Your task to perform on an android device: Open network settings Image 0: 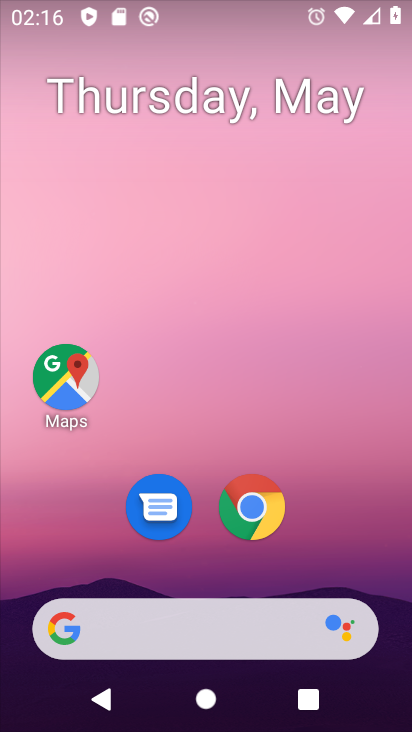
Step 0: drag from (330, 528) to (309, 72)
Your task to perform on an android device: Open network settings Image 1: 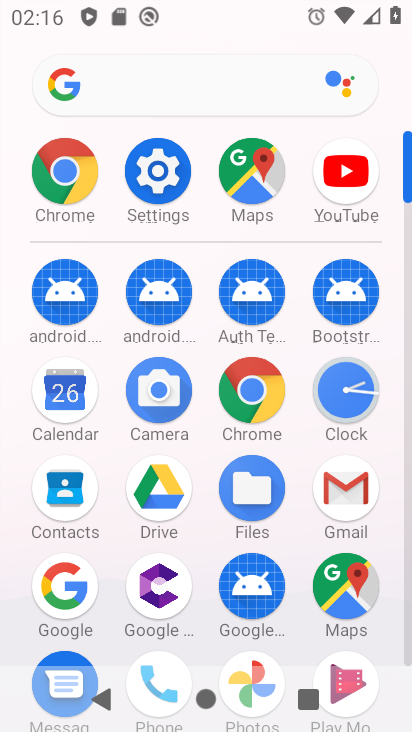
Step 1: click (162, 168)
Your task to perform on an android device: Open network settings Image 2: 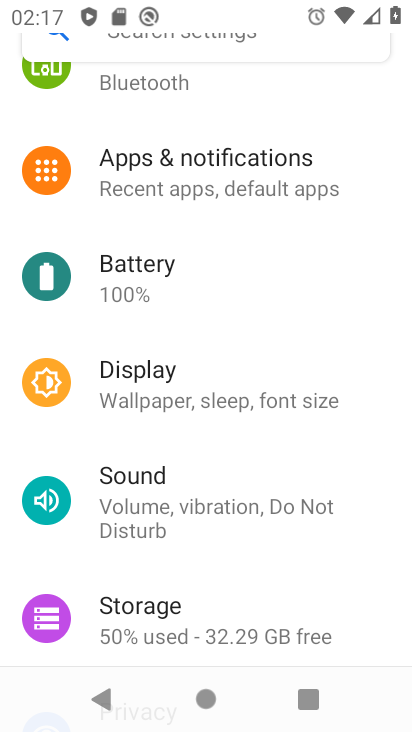
Step 2: drag from (156, 109) to (207, 549)
Your task to perform on an android device: Open network settings Image 3: 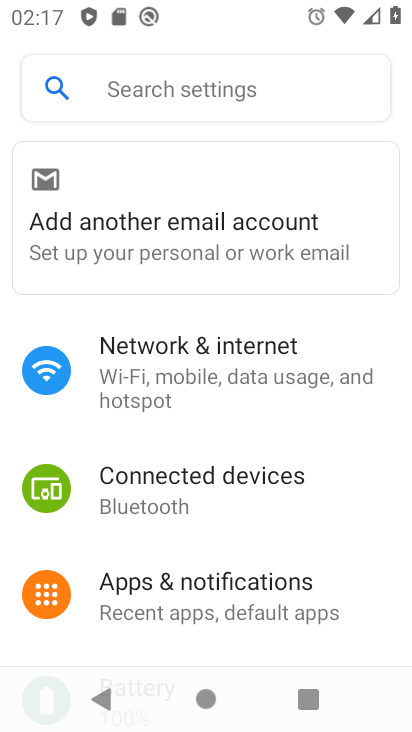
Step 3: click (285, 400)
Your task to perform on an android device: Open network settings Image 4: 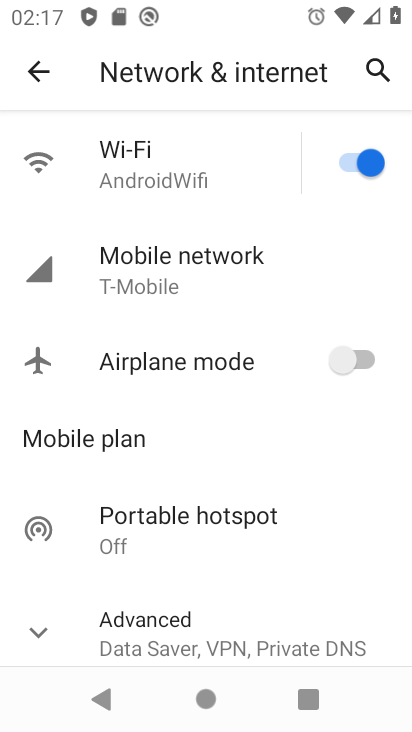
Step 4: task complete